Your task to perform on an android device: change your default location settings in chrome Image 0: 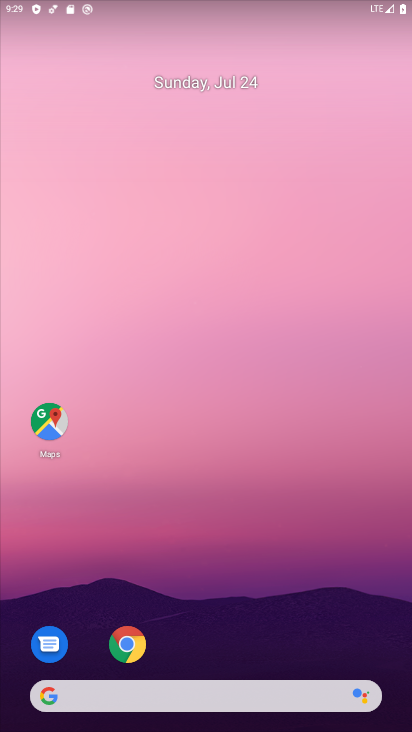
Step 0: click (127, 636)
Your task to perform on an android device: change your default location settings in chrome Image 1: 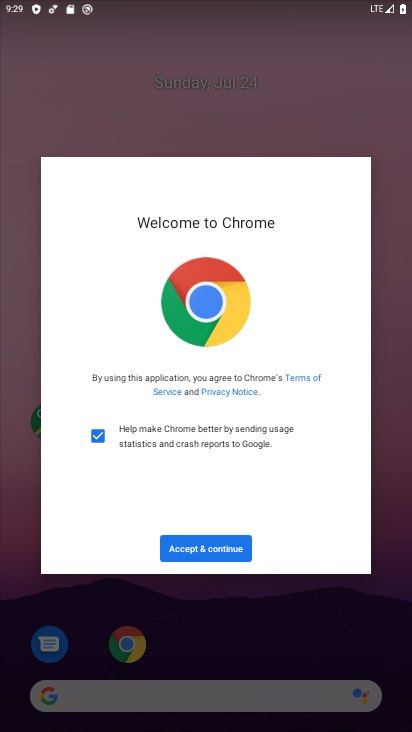
Step 1: click (184, 550)
Your task to perform on an android device: change your default location settings in chrome Image 2: 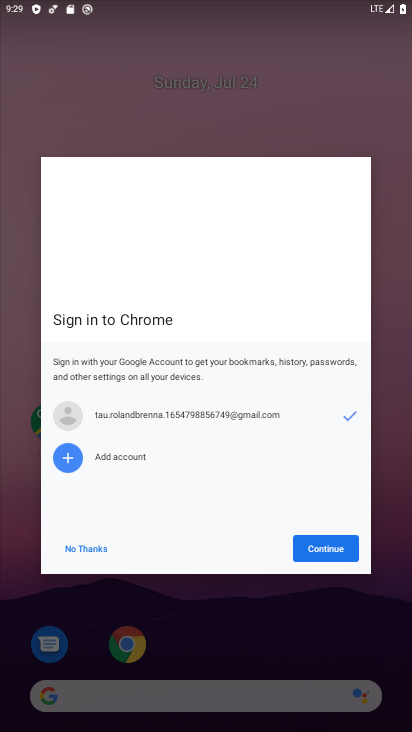
Step 2: click (321, 556)
Your task to perform on an android device: change your default location settings in chrome Image 3: 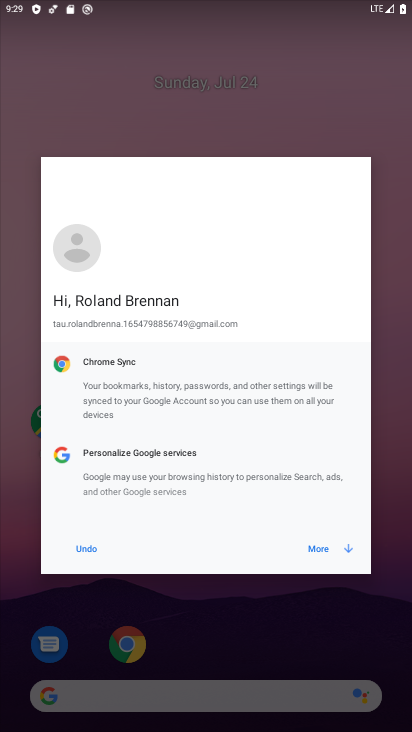
Step 3: click (314, 545)
Your task to perform on an android device: change your default location settings in chrome Image 4: 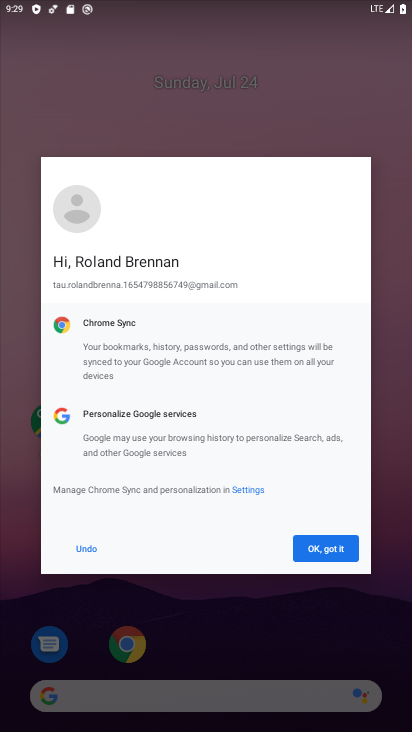
Step 4: click (314, 545)
Your task to perform on an android device: change your default location settings in chrome Image 5: 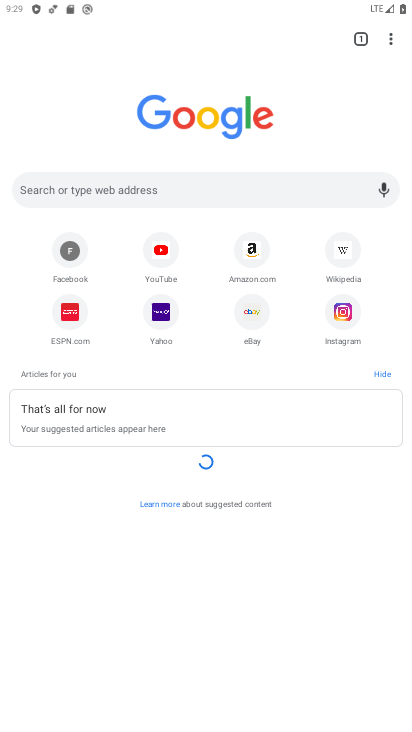
Step 5: click (392, 40)
Your task to perform on an android device: change your default location settings in chrome Image 6: 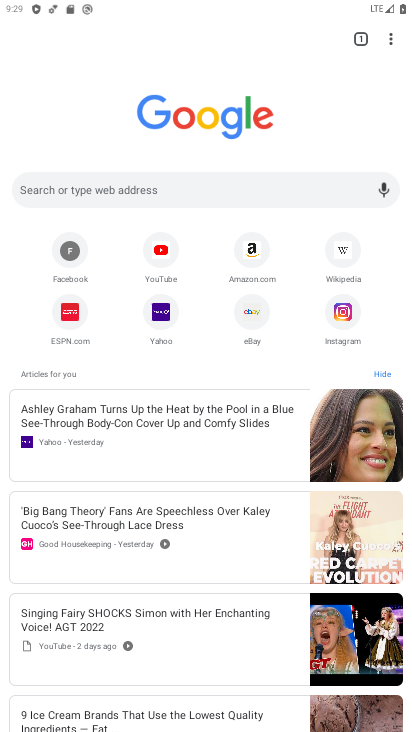
Step 6: click (391, 39)
Your task to perform on an android device: change your default location settings in chrome Image 7: 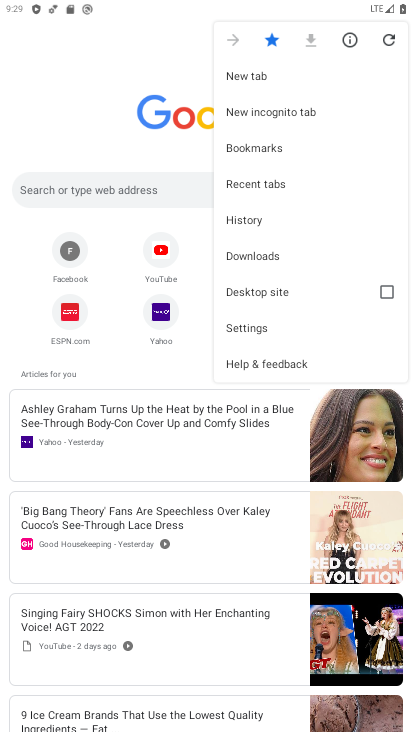
Step 7: click (391, 39)
Your task to perform on an android device: change your default location settings in chrome Image 8: 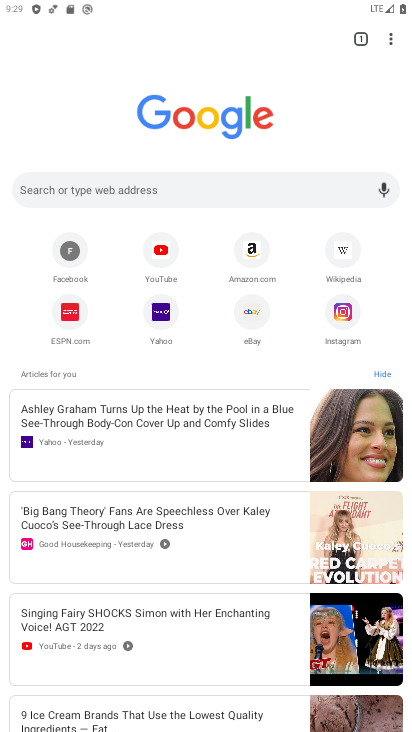
Step 8: click (391, 43)
Your task to perform on an android device: change your default location settings in chrome Image 9: 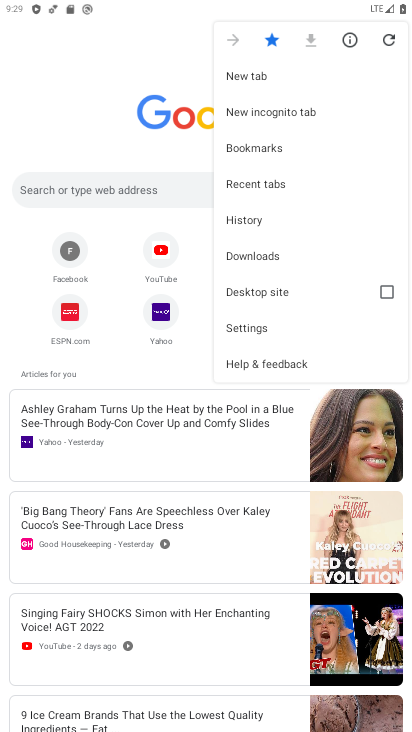
Step 9: click (245, 323)
Your task to perform on an android device: change your default location settings in chrome Image 10: 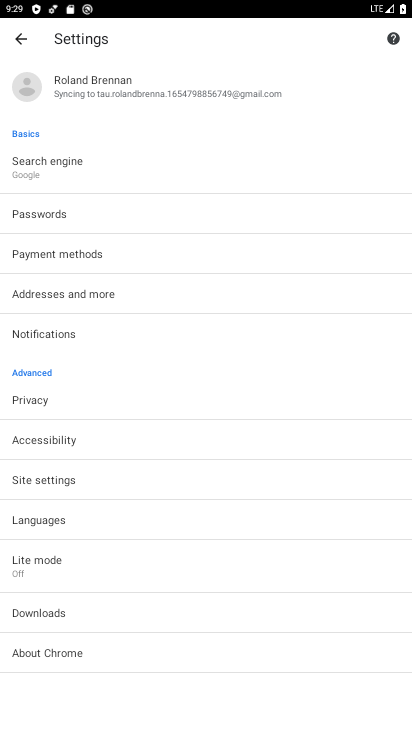
Step 10: click (12, 484)
Your task to perform on an android device: change your default location settings in chrome Image 11: 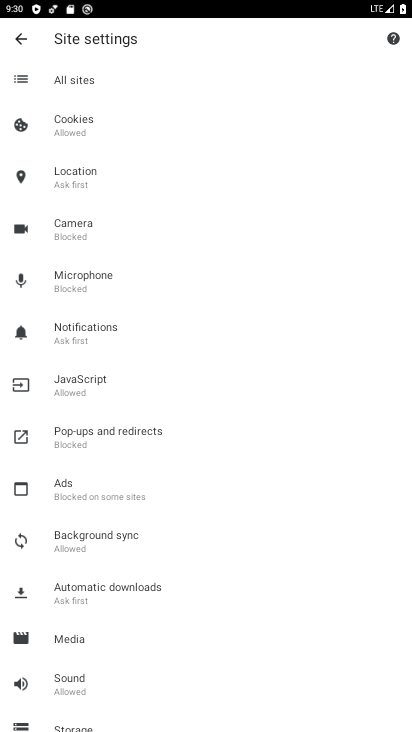
Step 11: click (72, 188)
Your task to perform on an android device: change your default location settings in chrome Image 12: 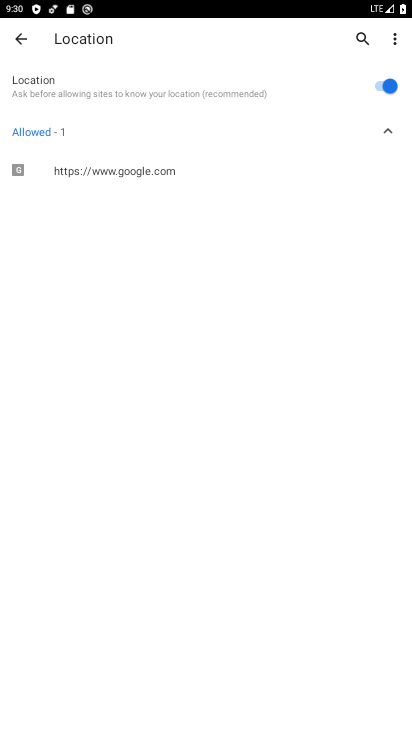
Step 12: click (387, 85)
Your task to perform on an android device: change your default location settings in chrome Image 13: 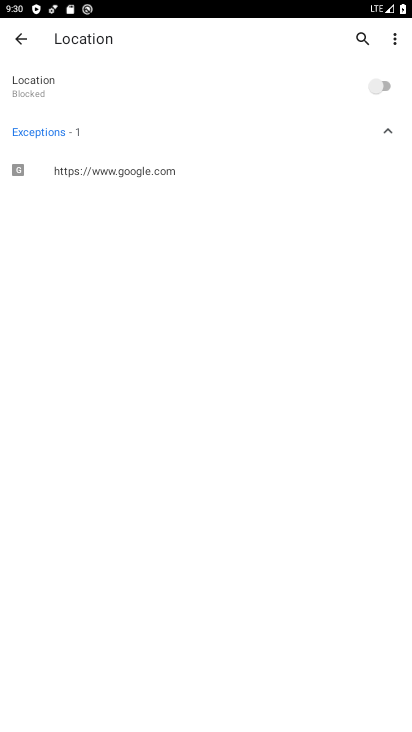
Step 13: task complete